Your task to perform on an android device: What is the recent news? Image 0: 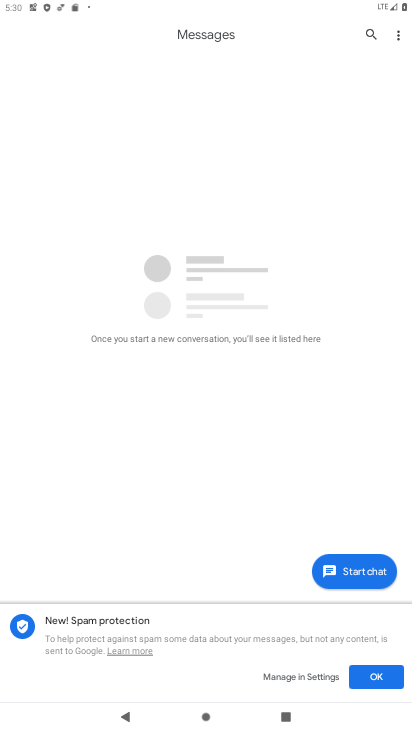
Step 0: press home button
Your task to perform on an android device: What is the recent news? Image 1: 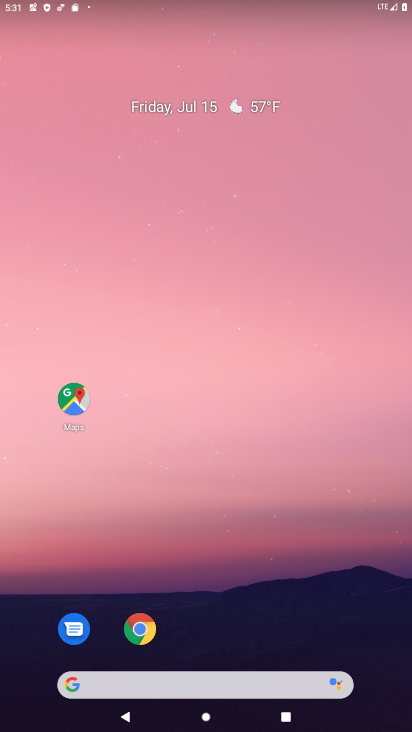
Step 1: click (74, 685)
Your task to perform on an android device: What is the recent news? Image 2: 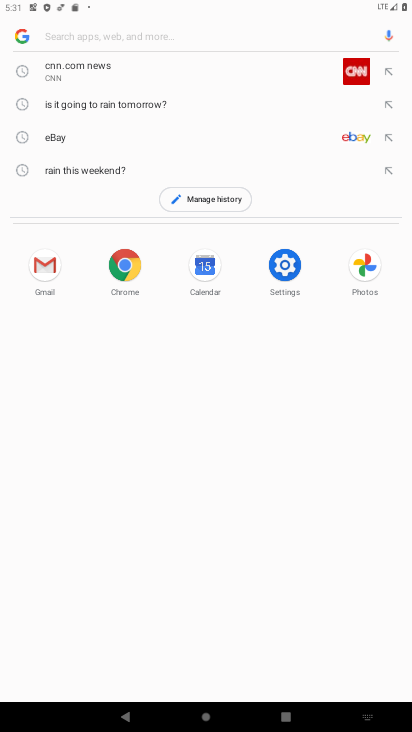
Step 2: type "recent news?"
Your task to perform on an android device: What is the recent news? Image 3: 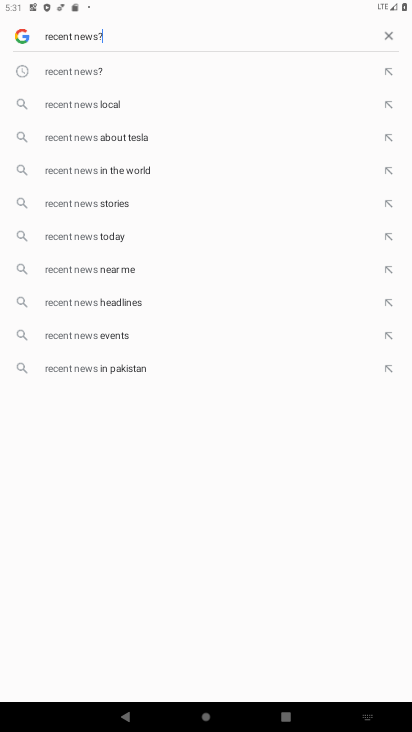
Step 3: press enter
Your task to perform on an android device: What is the recent news? Image 4: 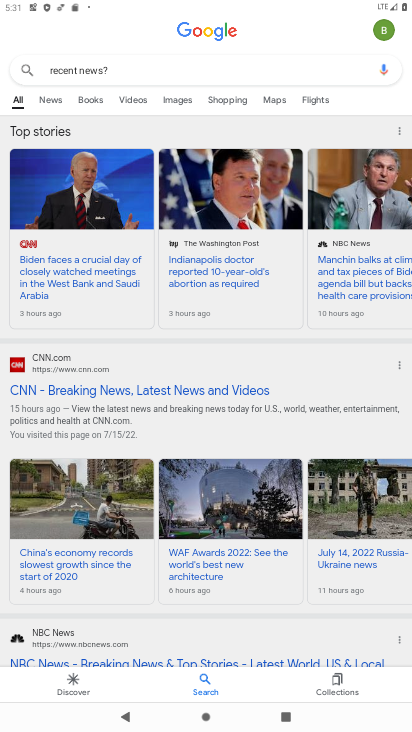
Step 4: task complete